Your task to perform on an android device: Go to Amazon Image 0: 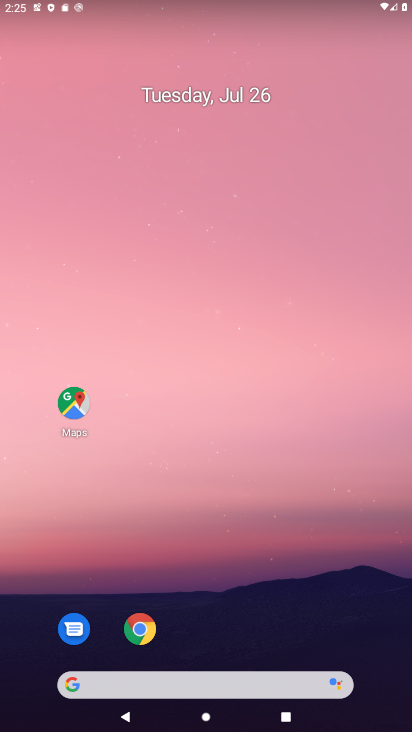
Step 0: click (140, 622)
Your task to perform on an android device: Go to Amazon Image 1: 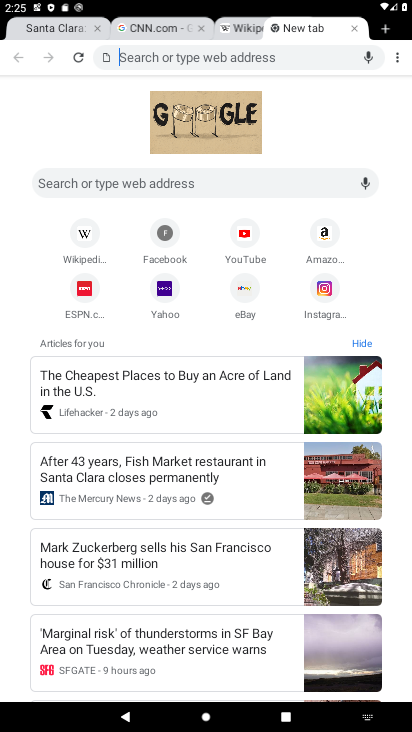
Step 1: click (321, 231)
Your task to perform on an android device: Go to Amazon Image 2: 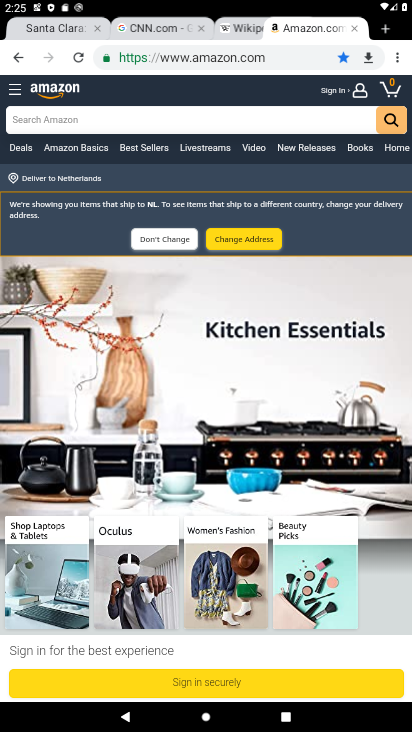
Step 2: task complete